Your task to perform on an android device: check android version Image 0: 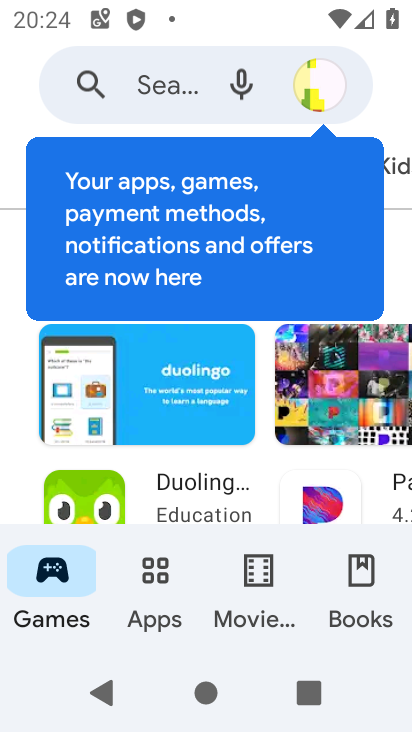
Step 0: press home button
Your task to perform on an android device: check android version Image 1: 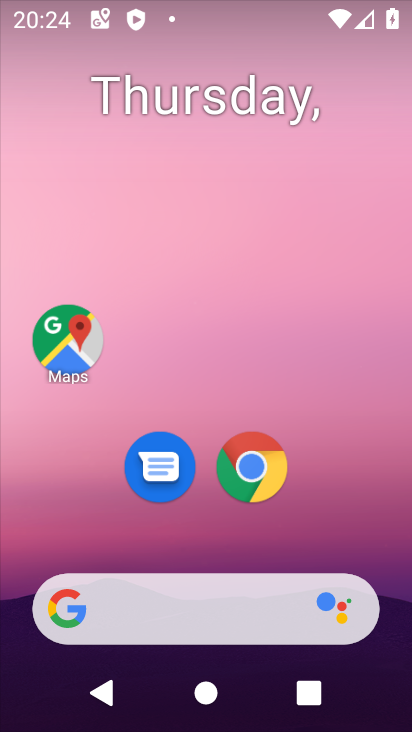
Step 1: drag from (370, 535) to (328, 233)
Your task to perform on an android device: check android version Image 2: 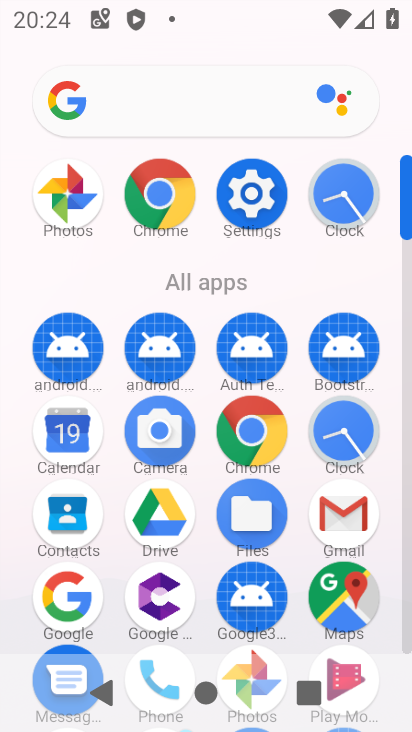
Step 2: click (258, 195)
Your task to perform on an android device: check android version Image 3: 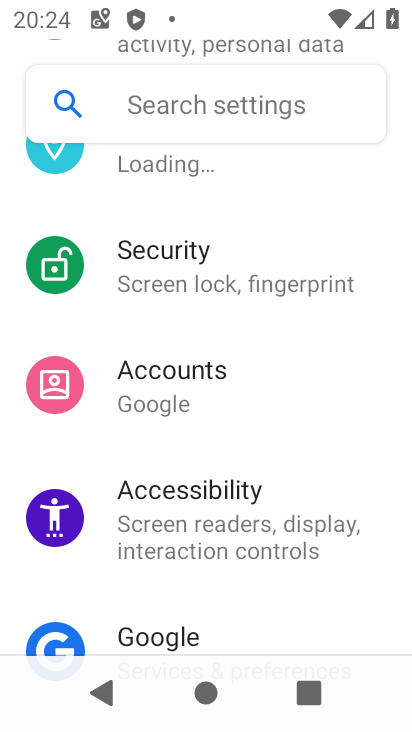
Step 3: drag from (252, 576) to (278, 296)
Your task to perform on an android device: check android version Image 4: 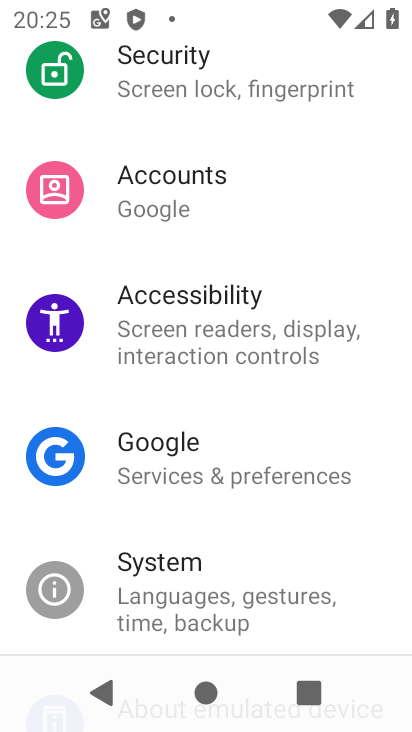
Step 4: drag from (298, 518) to (301, 260)
Your task to perform on an android device: check android version Image 5: 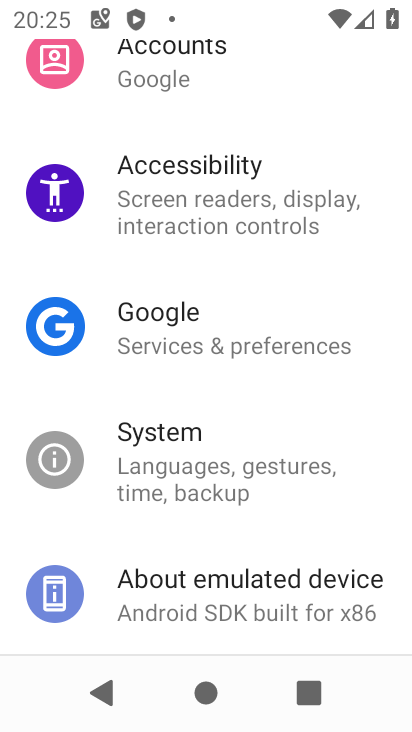
Step 5: click (235, 578)
Your task to perform on an android device: check android version Image 6: 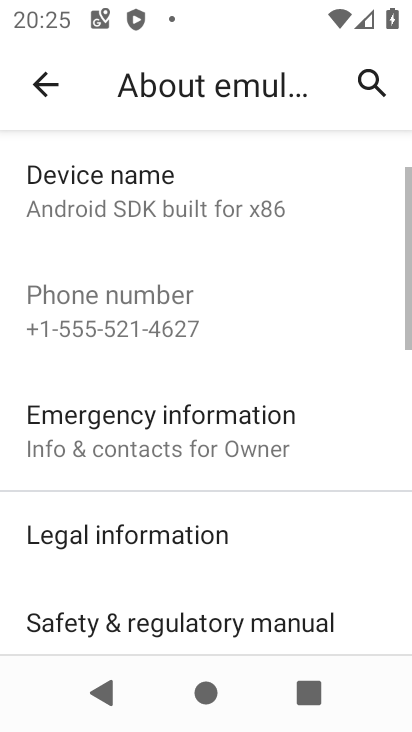
Step 6: drag from (250, 549) to (308, 173)
Your task to perform on an android device: check android version Image 7: 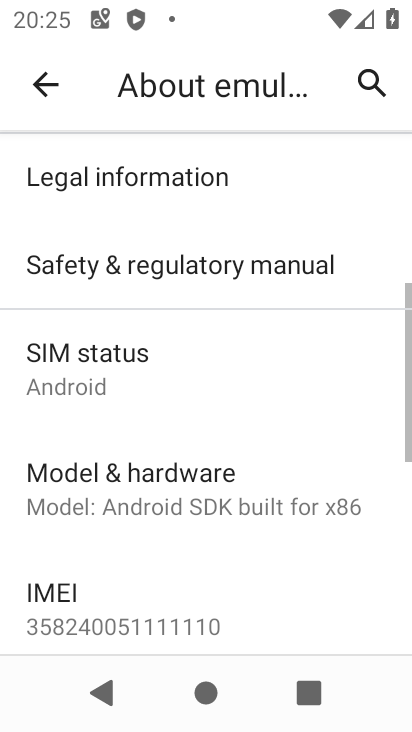
Step 7: drag from (224, 541) to (243, 256)
Your task to perform on an android device: check android version Image 8: 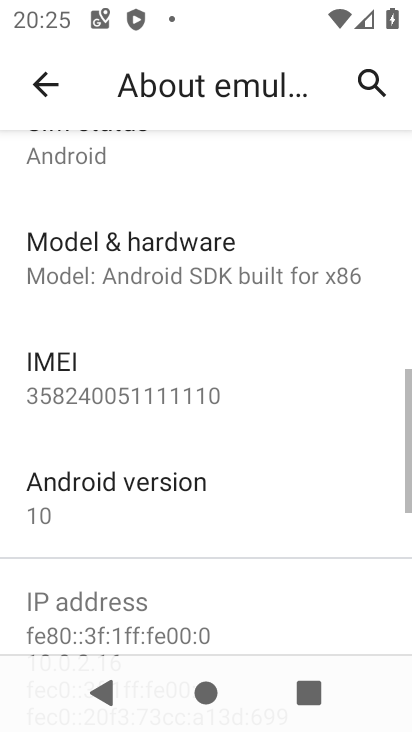
Step 8: click (172, 503)
Your task to perform on an android device: check android version Image 9: 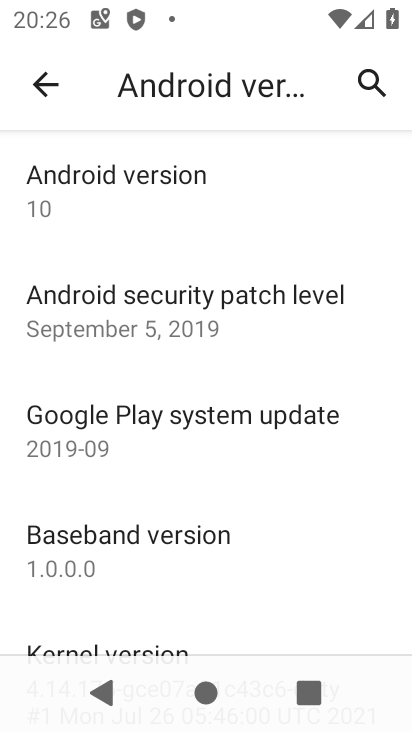
Step 9: task complete